Your task to perform on an android device: check android version Image 0: 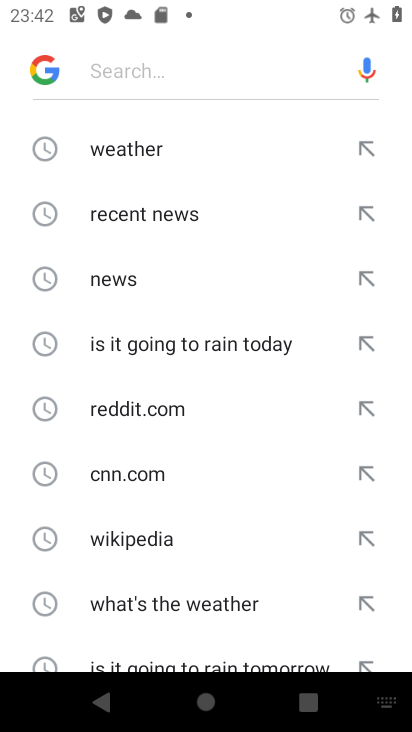
Step 0: press home button
Your task to perform on an android device: check android version Image 1: 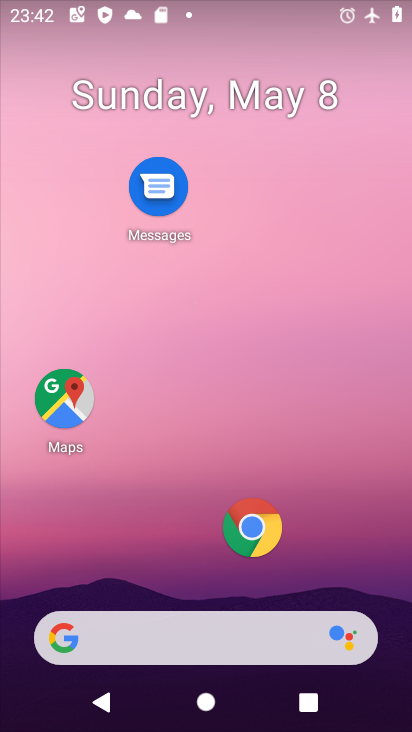
Step 1: drag from (172, 546) to (234, 96)
Your task to perform on an android device: check android version Image 2: 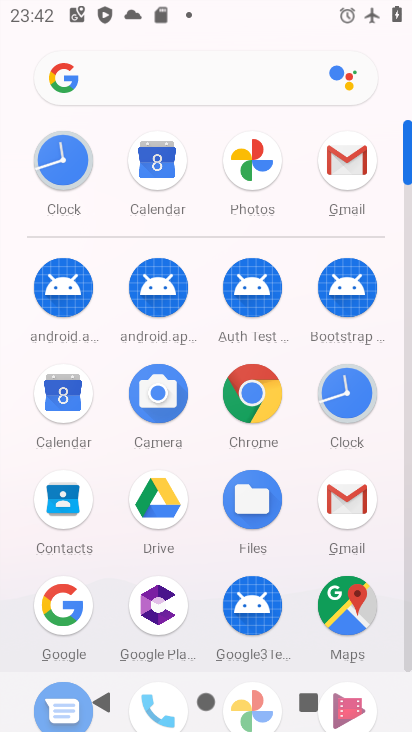
Step 2: drag from (204, 553) to (224, 157)
Your task to perform on an android device: check android version Image 3: 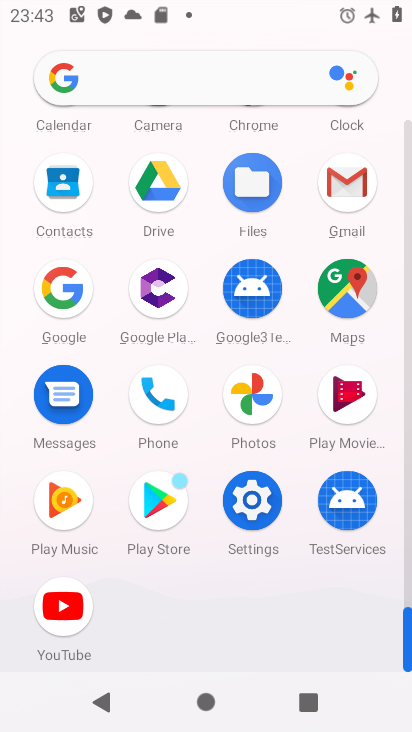
Step 3: click (246, 498)
Your task to perform on an android device: check android version Image 4: 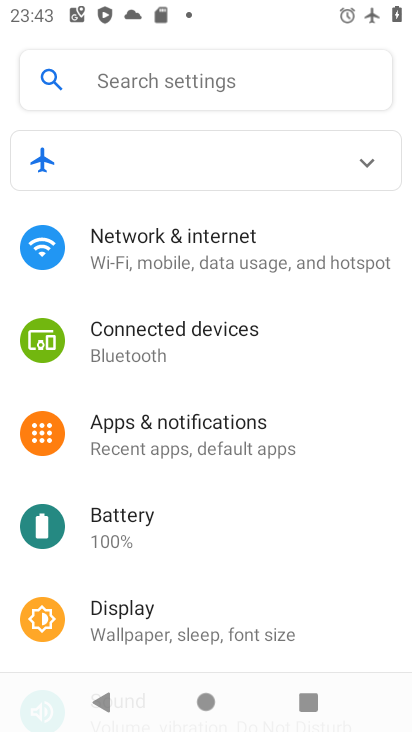
Step 4: drag from (278, 597) to (309, 109)
Your task to perform on an android device: check android version Image 5: 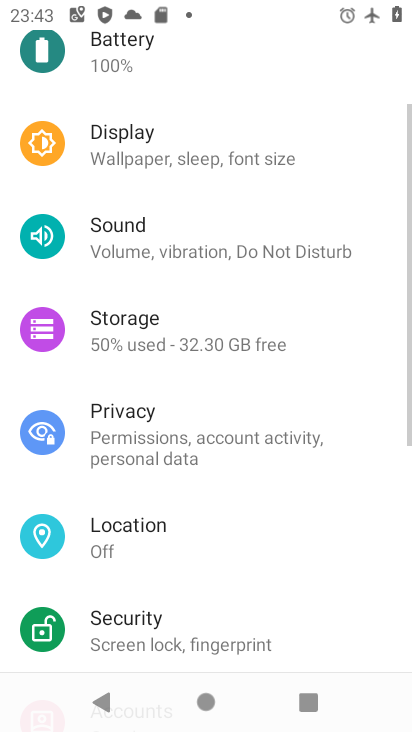
Step 5: drag from (222, 542) to (232, 54)
Your task to perform on an android device: check android version Image 6: 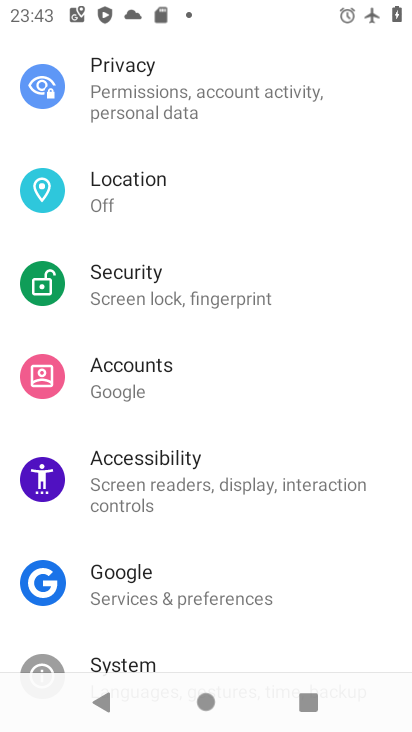
Step 6: drag from (213, 597) to (259, 171)
Your task to perform on an android device: check android version Image 7: 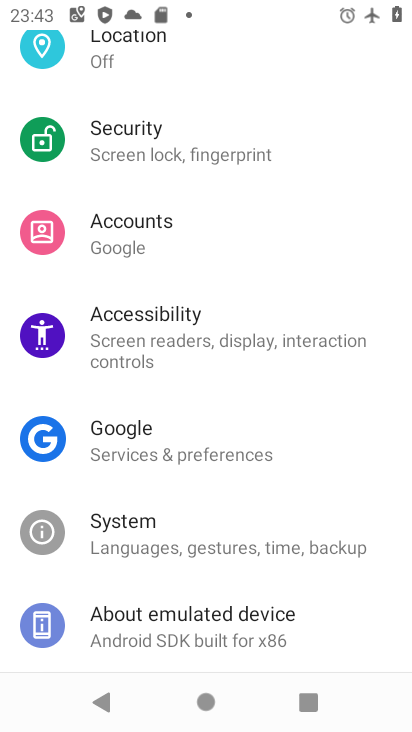
Step 7: click (173, 628)
Your task to perform on an android device: check android version Image 8: 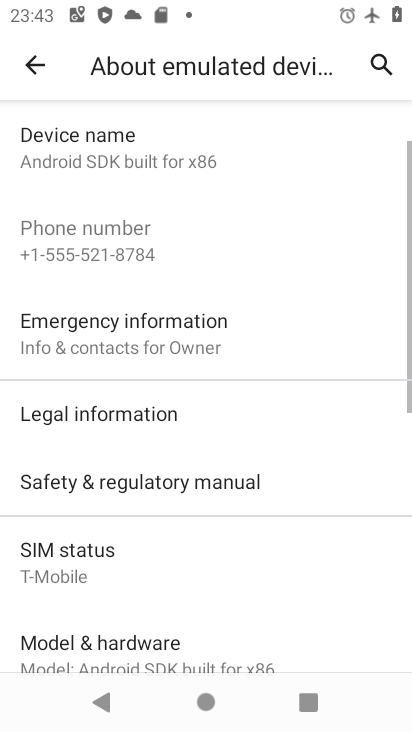
Step 8: drag from (173, 627) to (177, 75)
Your task to perform on an android device: check android version Image 9: 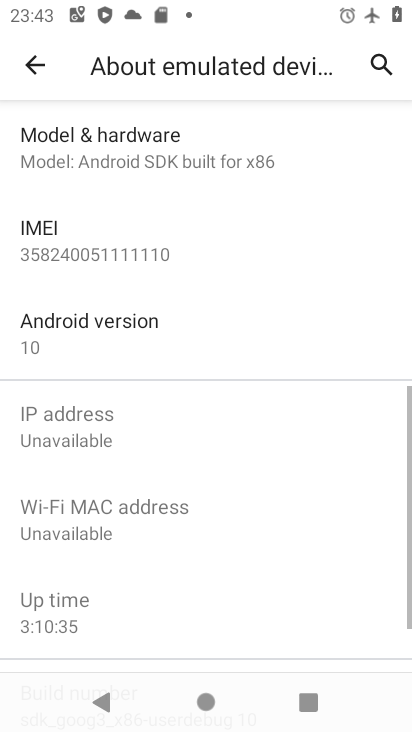
Step 9: drag from (126, 246) to (132, 451)
Your task to perform on an android device: check android version Image 10: 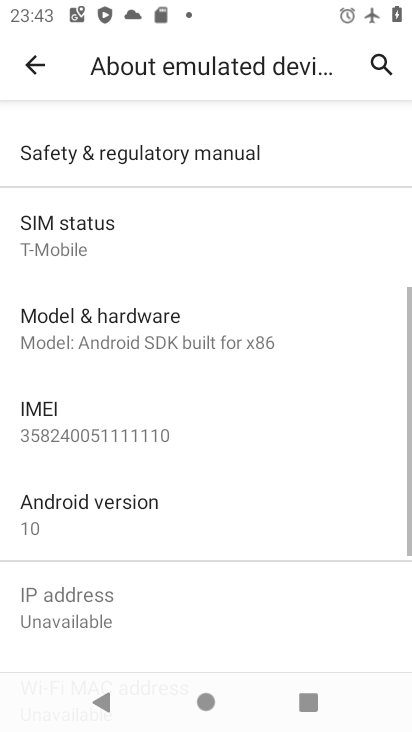
Step 10: click (107, 528)
Your task to perform on an android device: check android version Image 11: 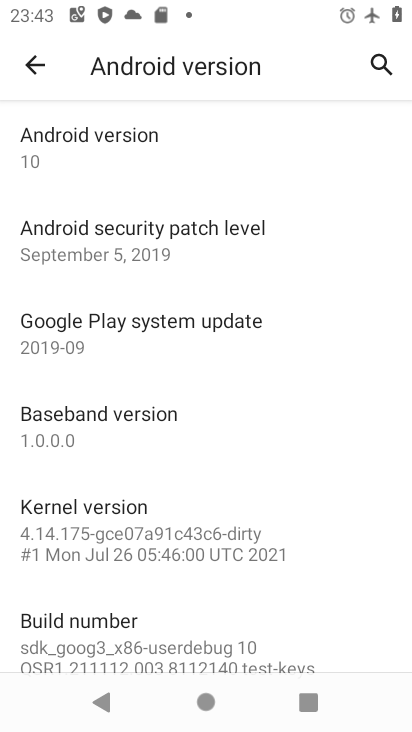
Step 11: task complete